Your task to perform on an android device: Open eBay Image 0: 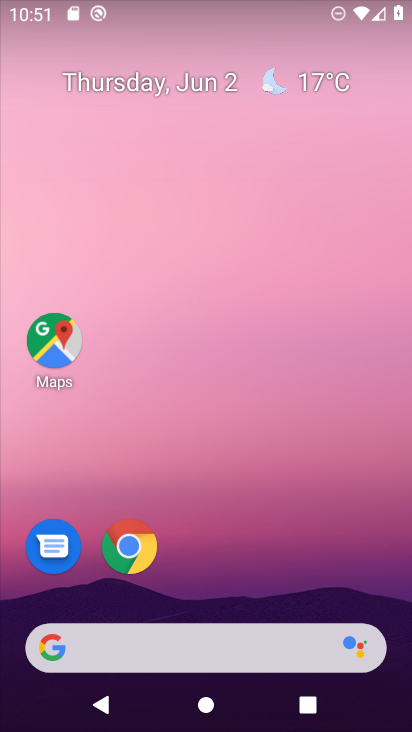
Step 0: drag from (218, 364) to (201, 19)
Your task to perform on an android device: Open eBay Image 1: 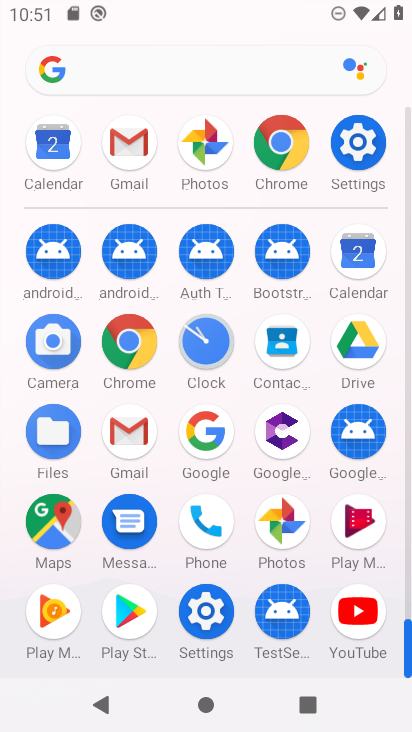
Step 1: click (124, 336)
Your task to perform on an android device: Open eBay Image 2: 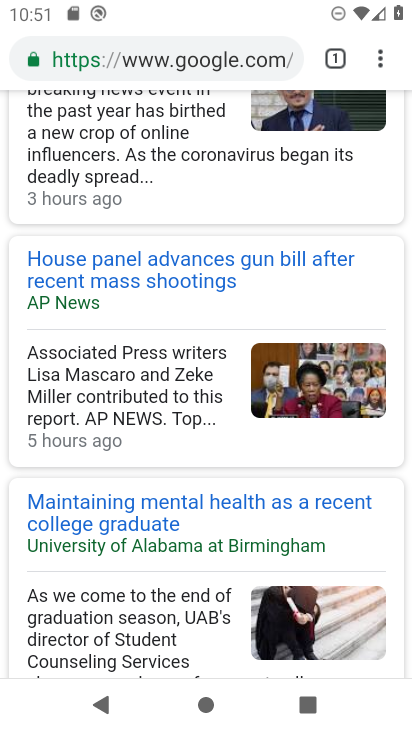
Step 2: click (180, 72)
Your task to perform on an android device: Open eBay Image 3: 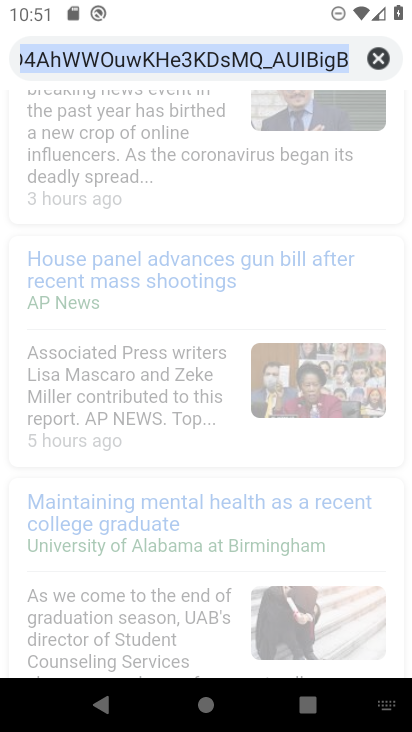
Step 3: click (378, 54)
Your task to perform on an android device: Open eBay Image 4: 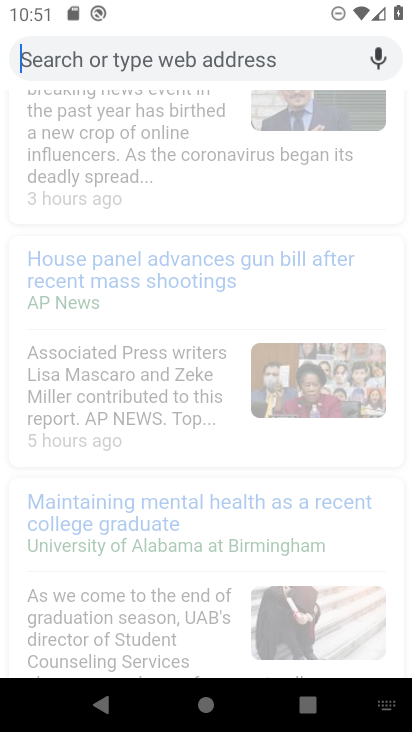
Step 4: type "eBay"
Your task to perform on an android device: Open eBay Image 5: 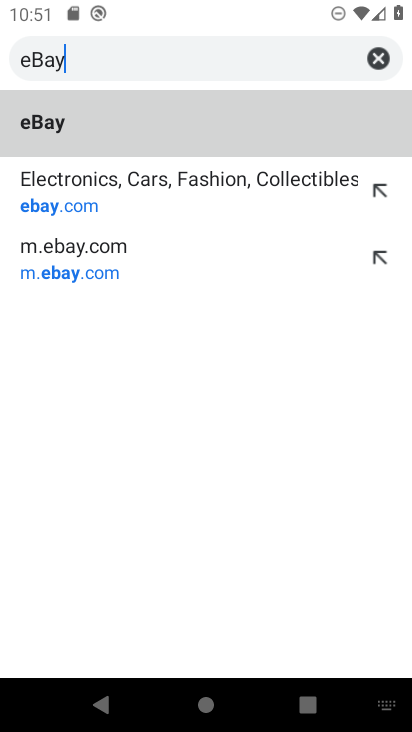
Step 5: click (142, 209)
Your task to perform on an android device: Open eBay Image 6: 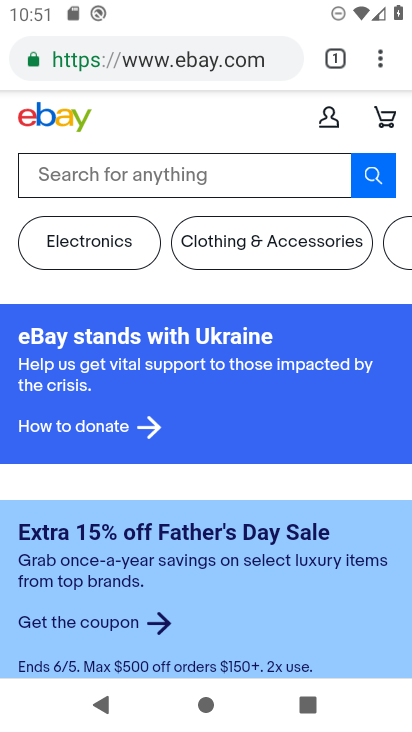
Step 6: task complete